Your task to perform on an android device: turn off sleep mode Image 0: 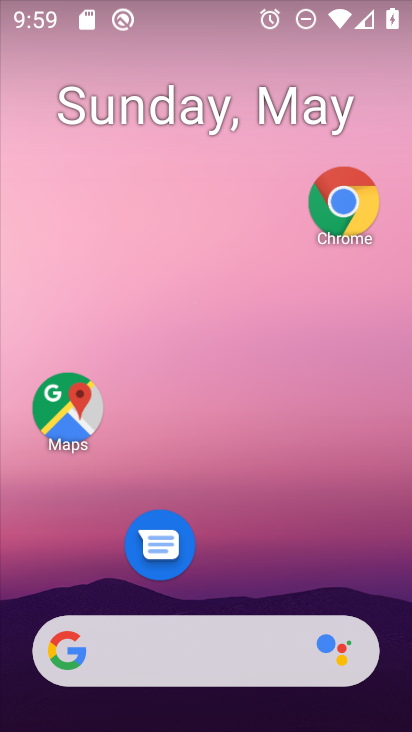
Step 0: drag from (271, 571) to (140, 9)
Your task to perform on an android device: turn off sleep mode Image 1: 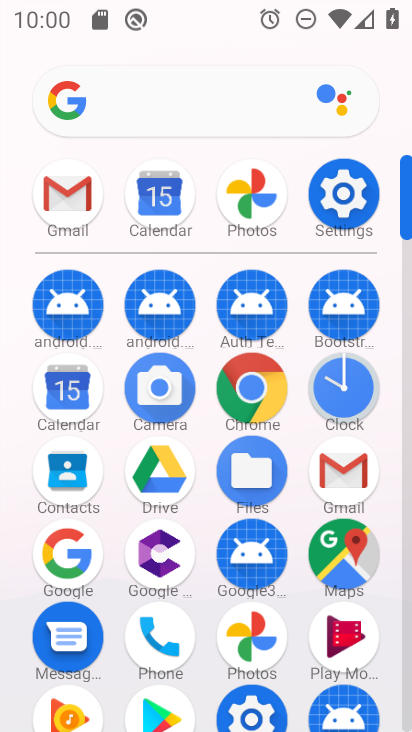
Step 1: click (342, 202)
Your task to perform on an android device: turn off sleep mode Image 2: 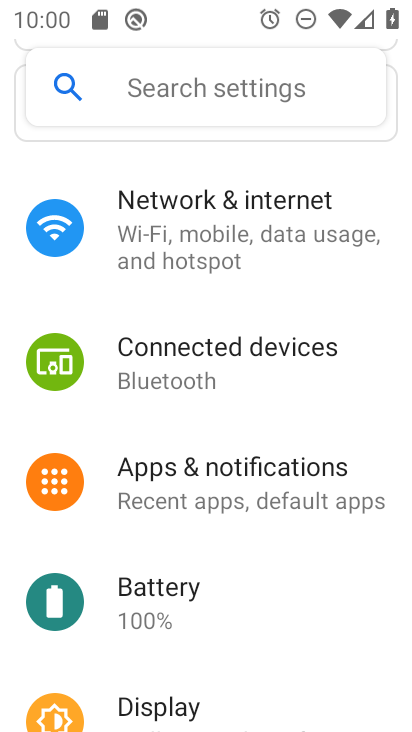
Step 2: drag from (183, 541) to (164, 308)
Your task to perform on an android device: turn off sleep mode Image 3: 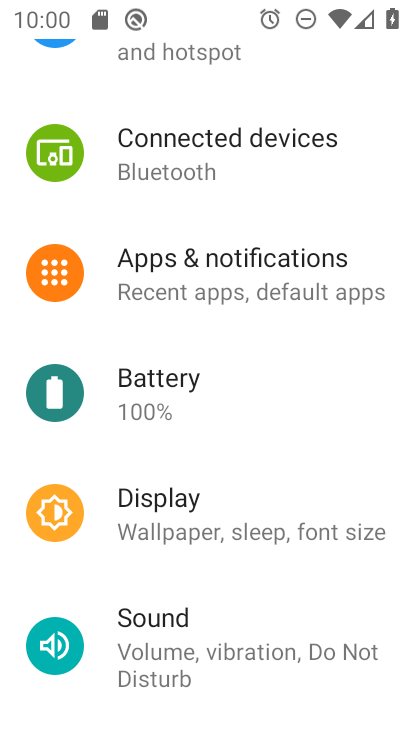
Step 3: click (207, 531)
Your task to perform on an android device: turn off sleep mode Image 4: 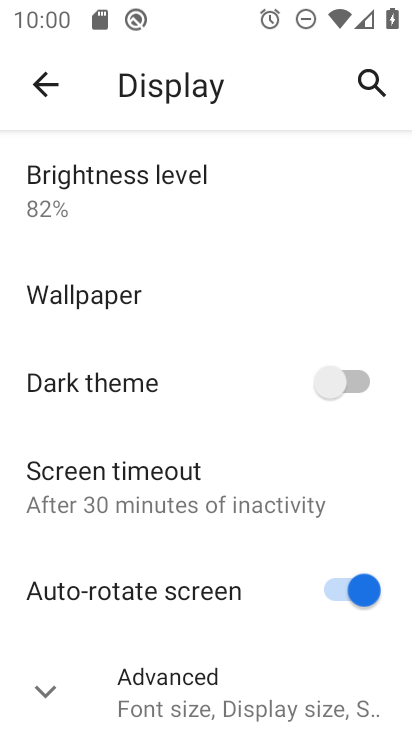
Step 4: drag from (152, 569) to (185, 365)
Your task to perform on an android device: turn off sleep mode Image 5: 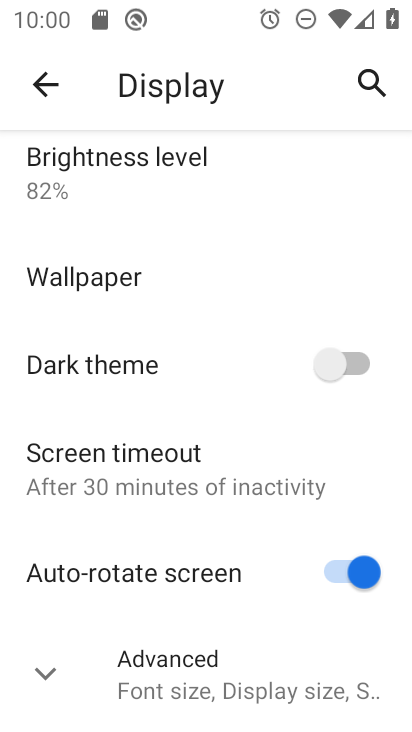
Step 5: click (122, 663)
Your task to perform on an android device: turn off sleep mode Image 6: 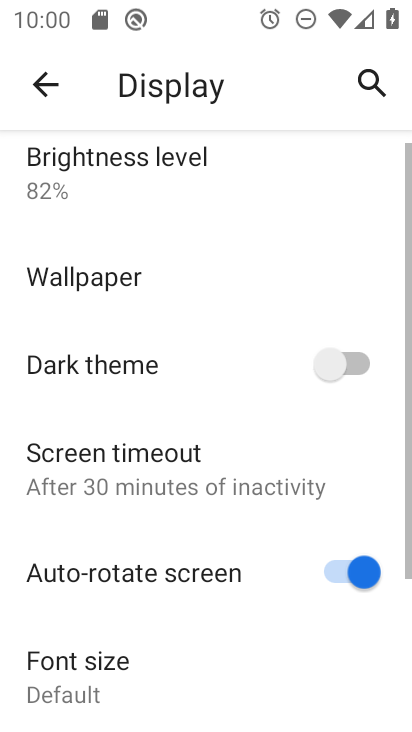
Step 6: drag from (140, 664) to (178, 279)
Your task to perform on an android device: turn off sleep mode Image 7: 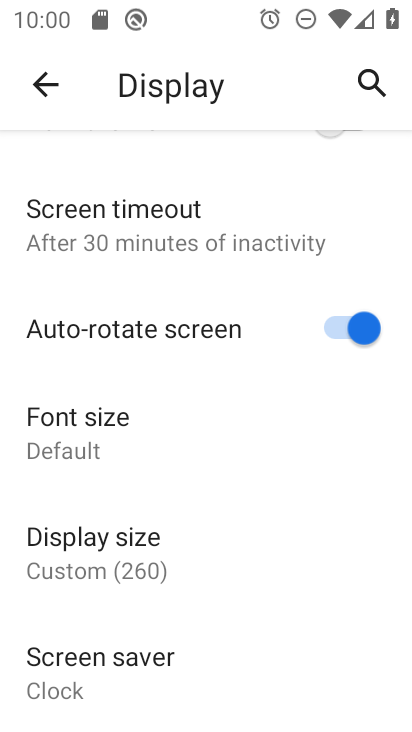
Step 7: drag from (135, 645) to (157, 406)
Your task to perform on an android device: turn off sleep mode Image 8: 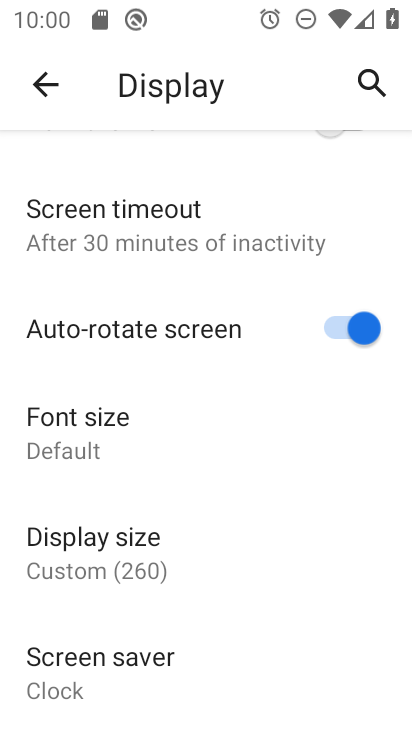
Step 8: click (43, 74)
Your task to perform on an android device: turn off sleep mode Image 9: 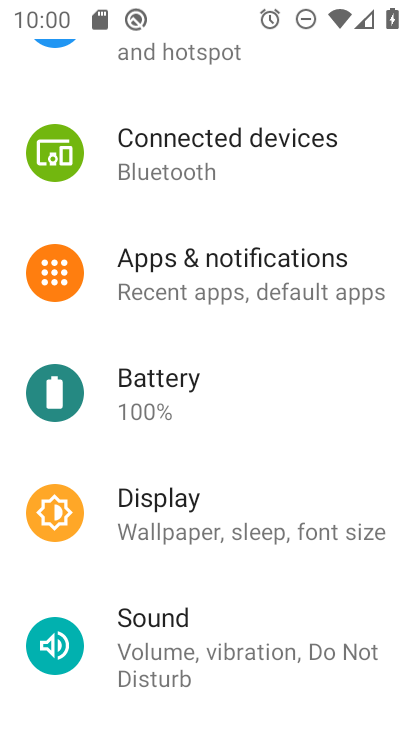
Step 9: task complete